Your task to perform on an android device: Open Yahoo.com Image 0: 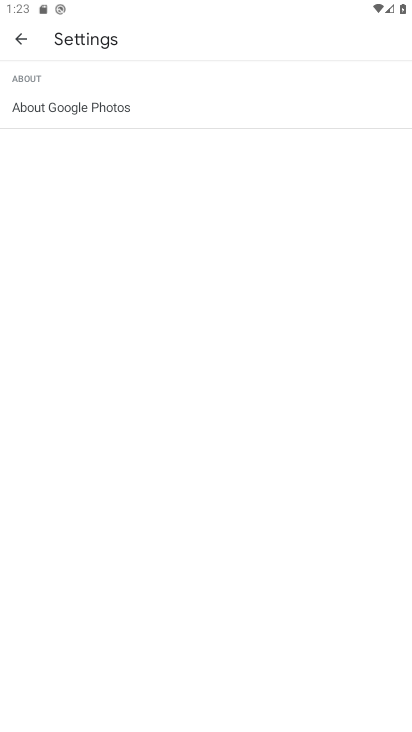
Step 0: press home button
Your task to perform on an android device: Open Yahoo.com Image 1: 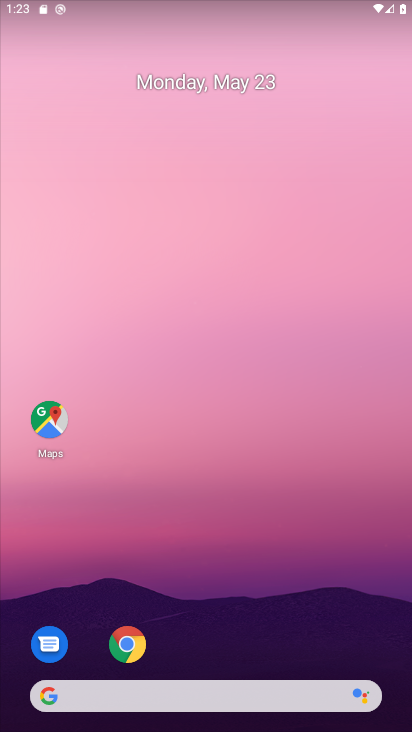
Step 1: click (121, 655)
Your task to perform on an android device: Open Yahoo.com Image 2: 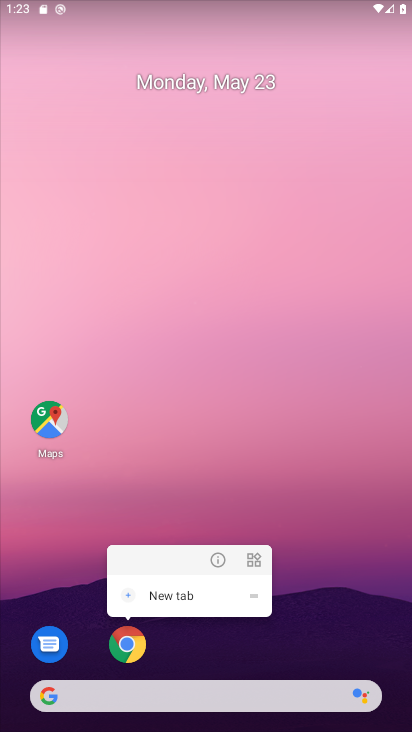
Step 2: click (121, 655)
Your task to perform on an android device: Open Yahoo.com Image 3: 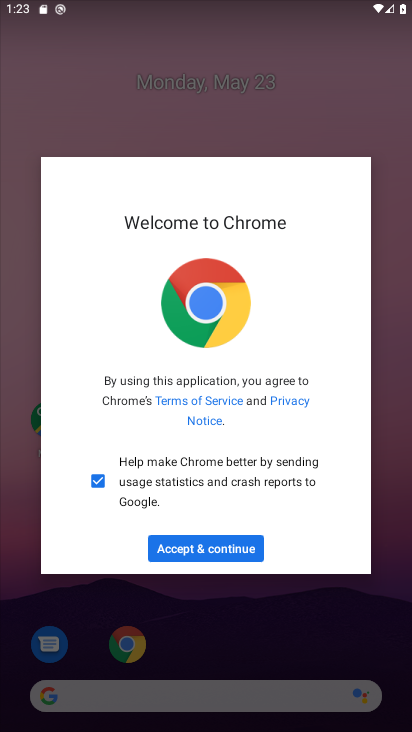
Step 3: click (202, 548)
Your task to perform on an android device: Open Yahoo.com Image 4: 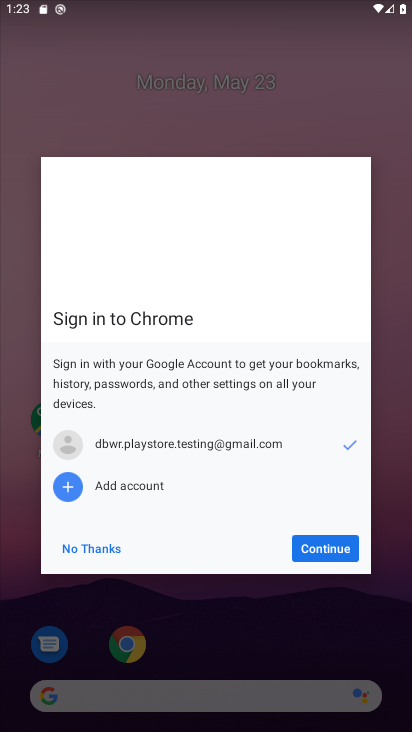
Step 4: click (319, 545)
Your task to perform on an android device: Open Yahoo.com Image 5: 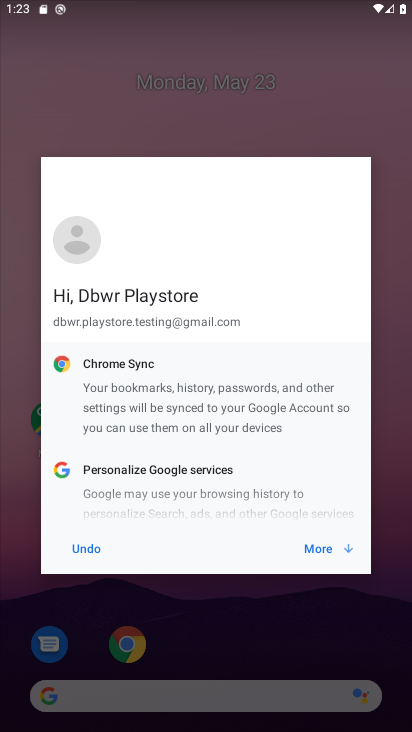
Step 5: click (319, 545)
Your task to perform on an android device: Open Yahoo.com Image 6: 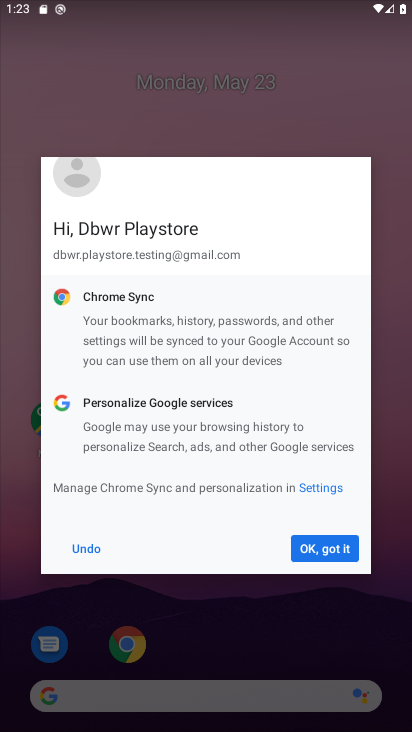
Step 6: click (320, 545)
Your task to perform on an android device: Open Yahoo.com Image 7: 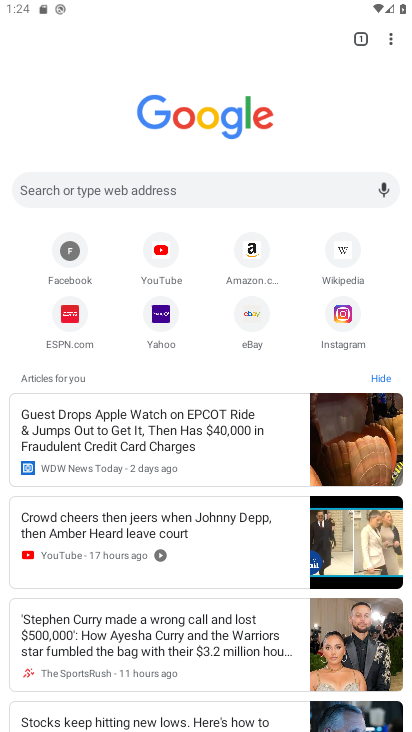
Step 7: click (149, 315)
Your task to perform on an android device: Open Yahoo.com Image 8: 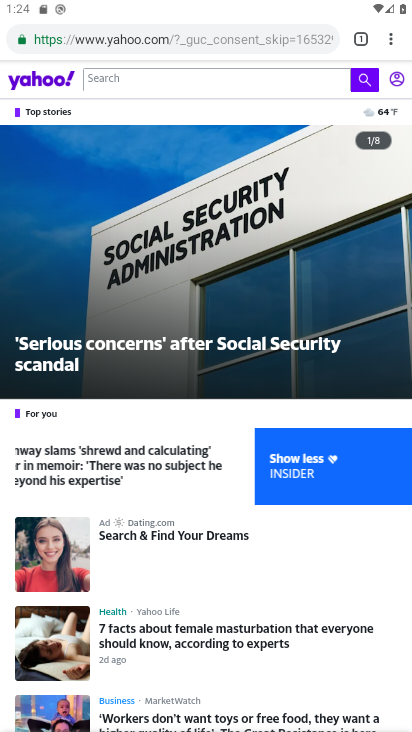
Step 8: task complete